Your task to perform on an android device: What's a good restaurant near me? Image 0: 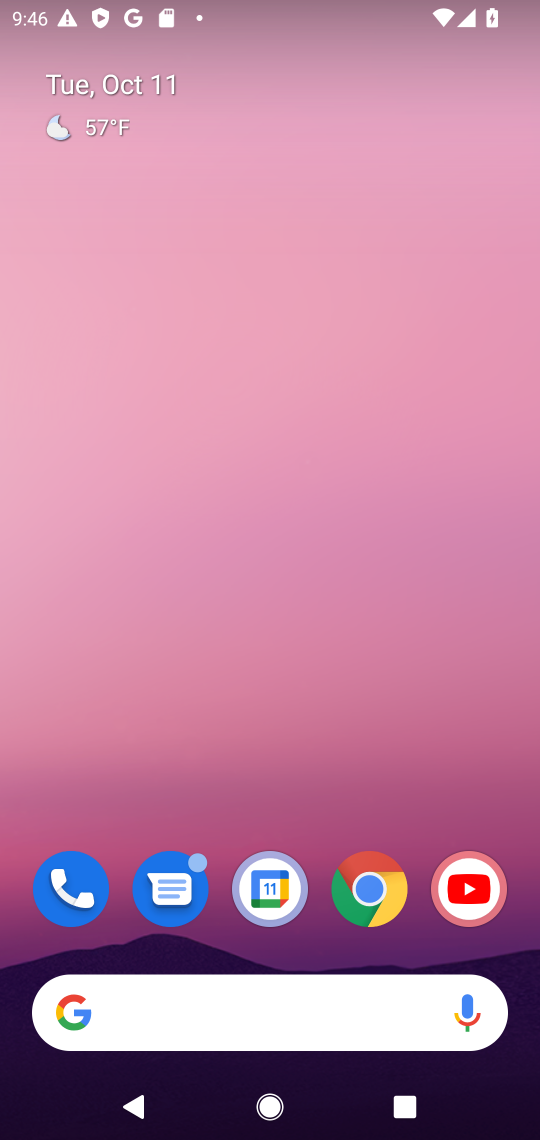
Step 0: click (186, 1009)
Your task to perform on an android device: What's a good restaurant near me? Image 1: 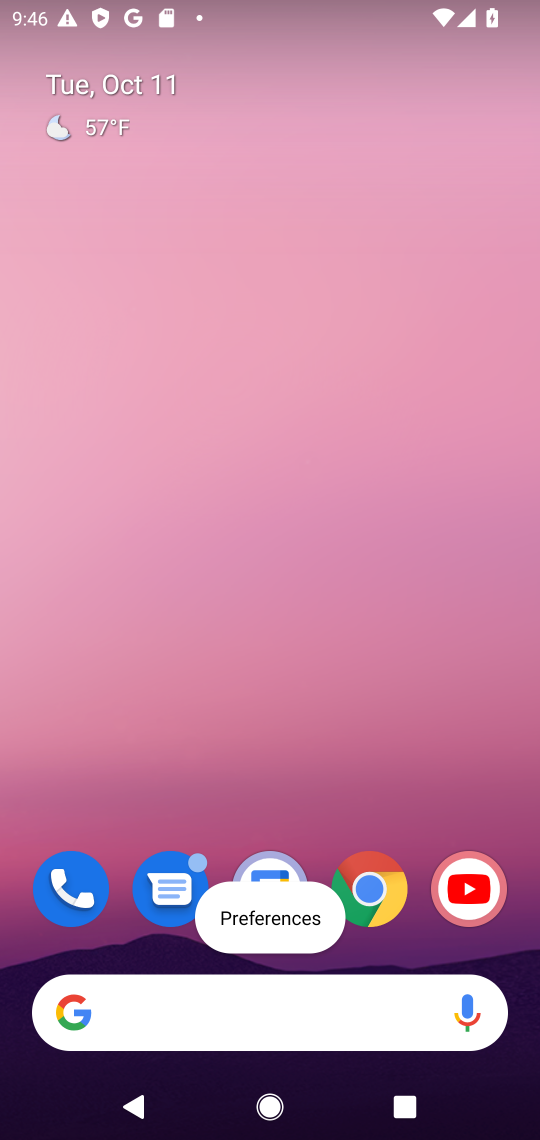
Step 1: type "What's a good restaurant near me?"
Your task to perform on an android device: What's a good restaurant near me? Image 2: 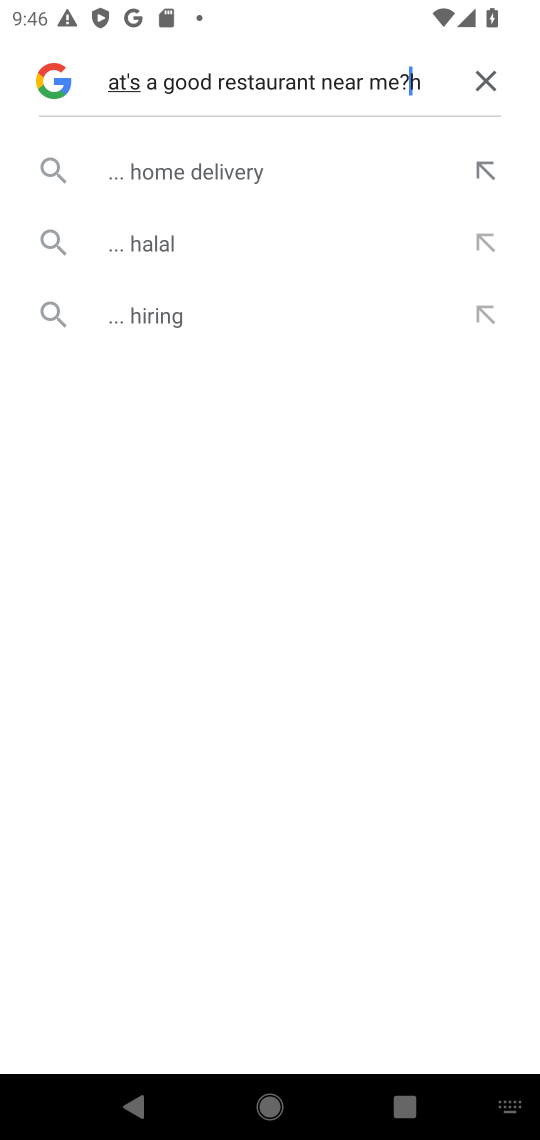
Step 2: click (486, 79)
Your task to perform on an android device: What's a good restaurant near me? Image 3: 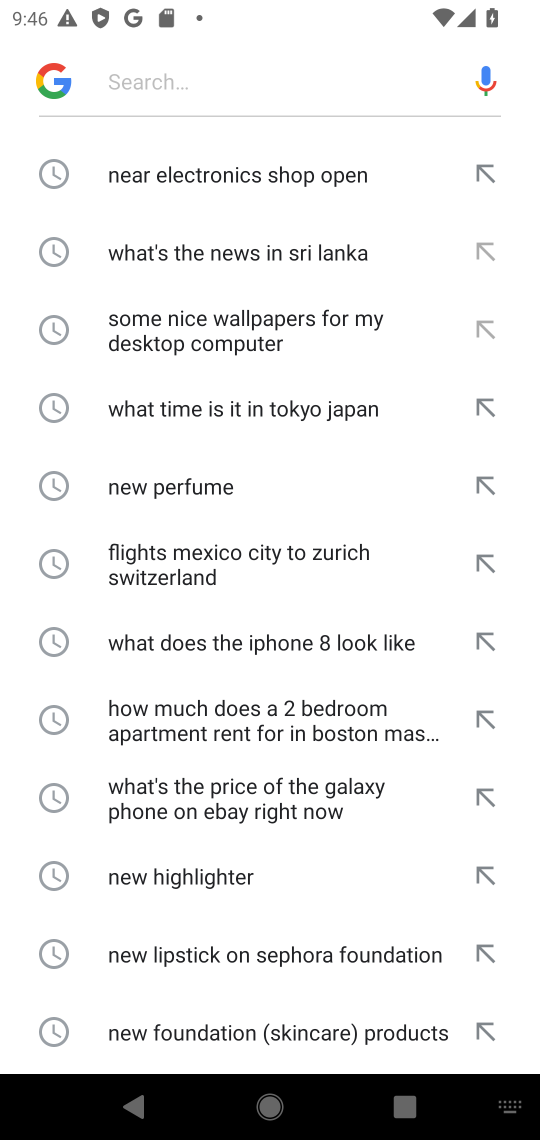
Step 3: click (159, 85)
Your task to perform on an android device: What's a good restaurant near me? Image 4: 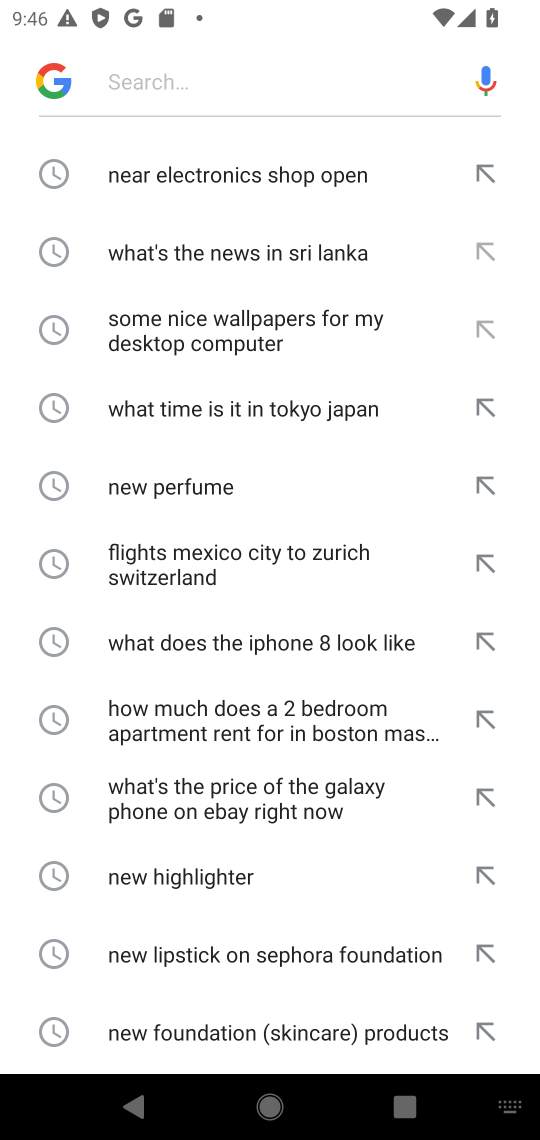
Step 4: type "What's a good restaurant near me?"
Your task to perform on an android device: What's a good restaurant near me? Image 5: 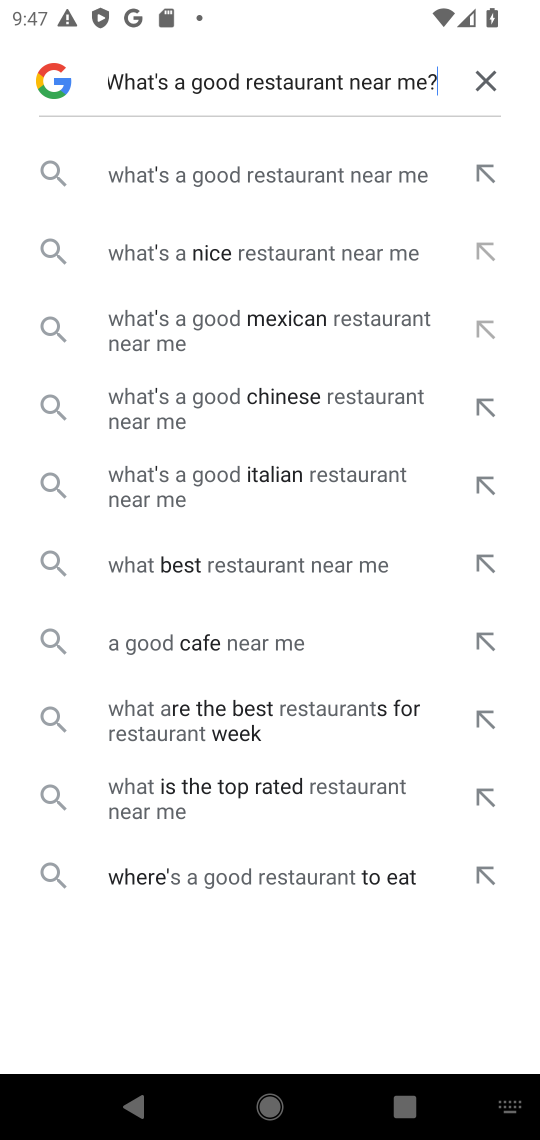
Step 5: click (251, 167)
Your task to perform on an android device: What's a good restaurant near me? Image 6: 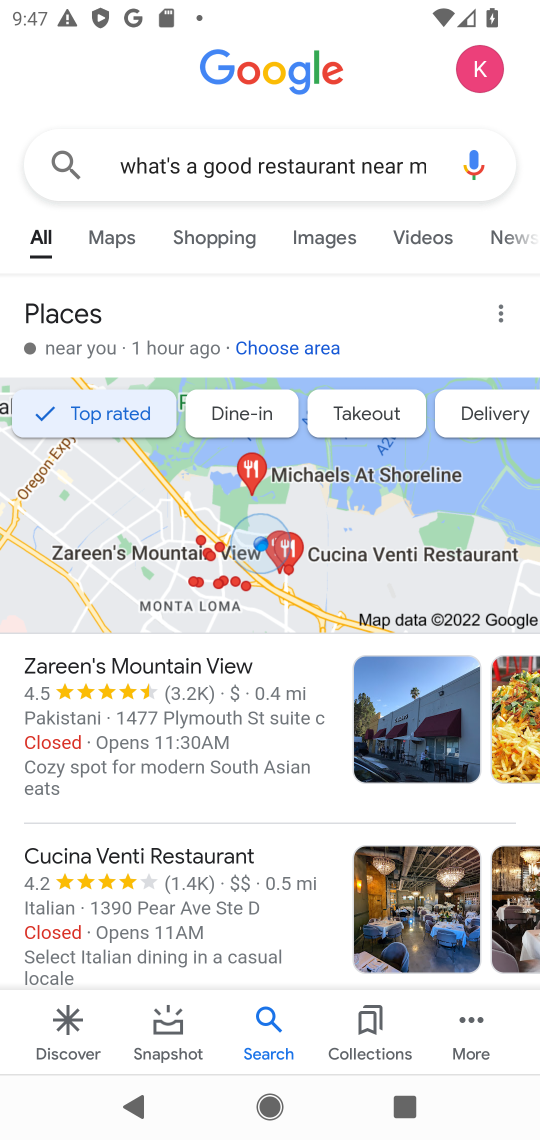
Step 6: task complete